Your task to perform on an android device: make emails show in primary in the gmail app Image 0: 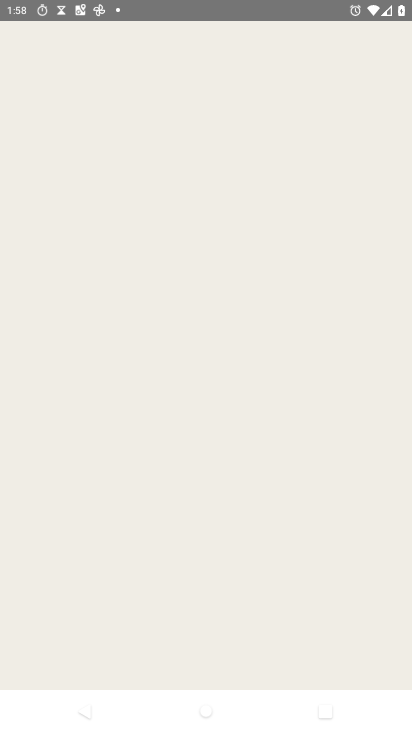
Step 0: press home button
Your task to perform on an android device: make emails show in primary in the gmail app Image 1: 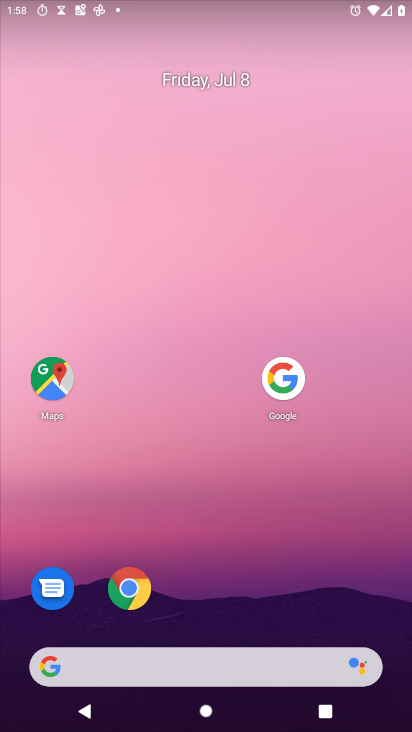
Step 1: drag from (194, 662) to (258, 188)
Your task to perform on an android device: make emails show in primary in the gmail app Image 2: 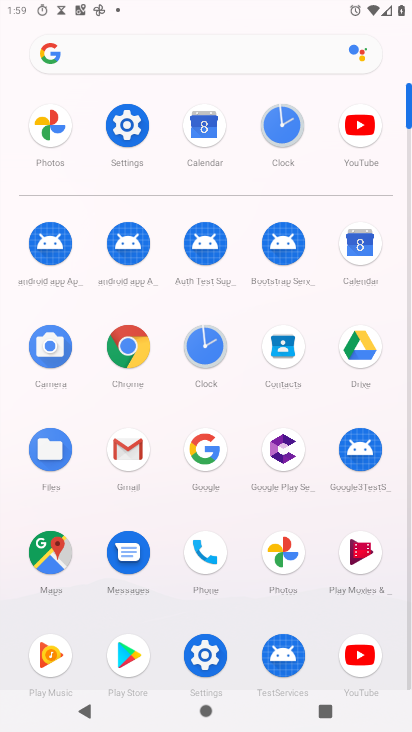
Step 2: click (126, 454)
Your task to perform on an android device: make emails show in primary in the gmail app Image 3: 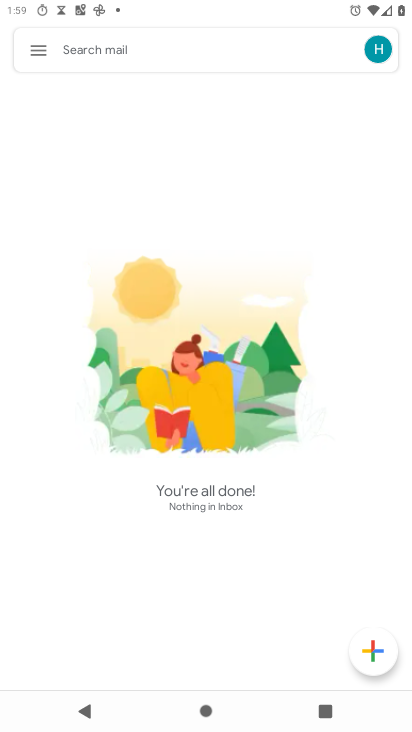
Step 3: click (45, 47)
Your task to perform on an android device: make emails show in primary in the gmail app Image 4: 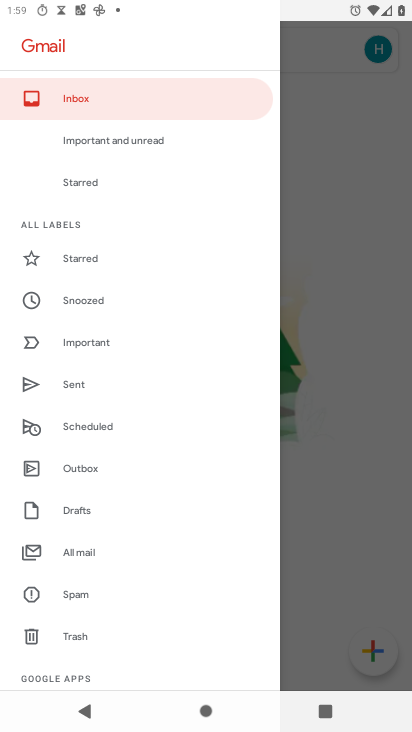
Step 4: drag from (171, 614) to (209, 158)
Your task to perform on an android device: make emails show in primary in the gmail app Image 5: 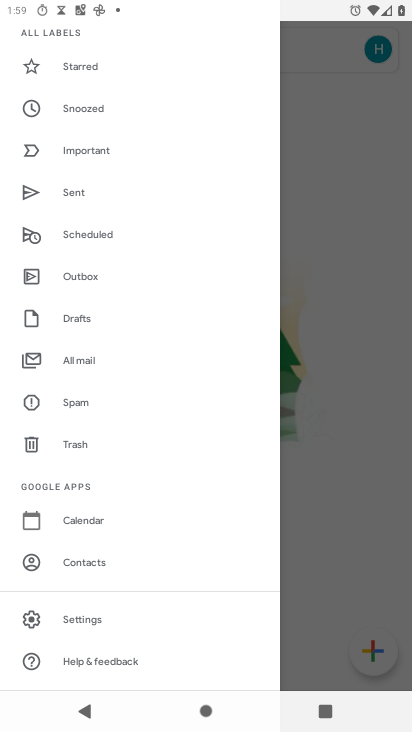
Step 5: click (78, 618)
Your task to perform on an android device: make emails show in primary in the gmail app Image 6: 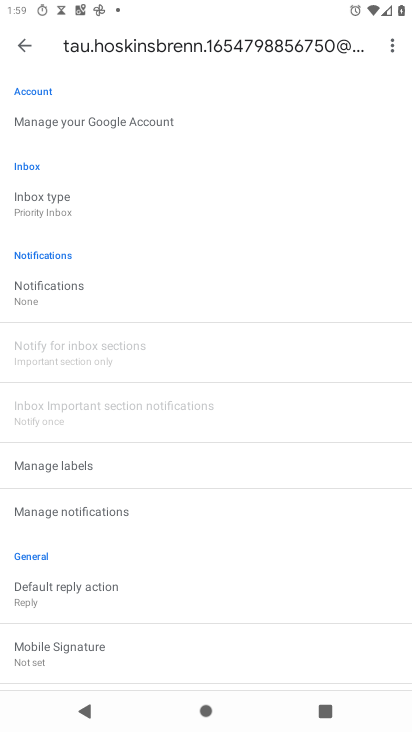
Step 6: task complete